Your task to perform on an android device: turn off location Image 0: 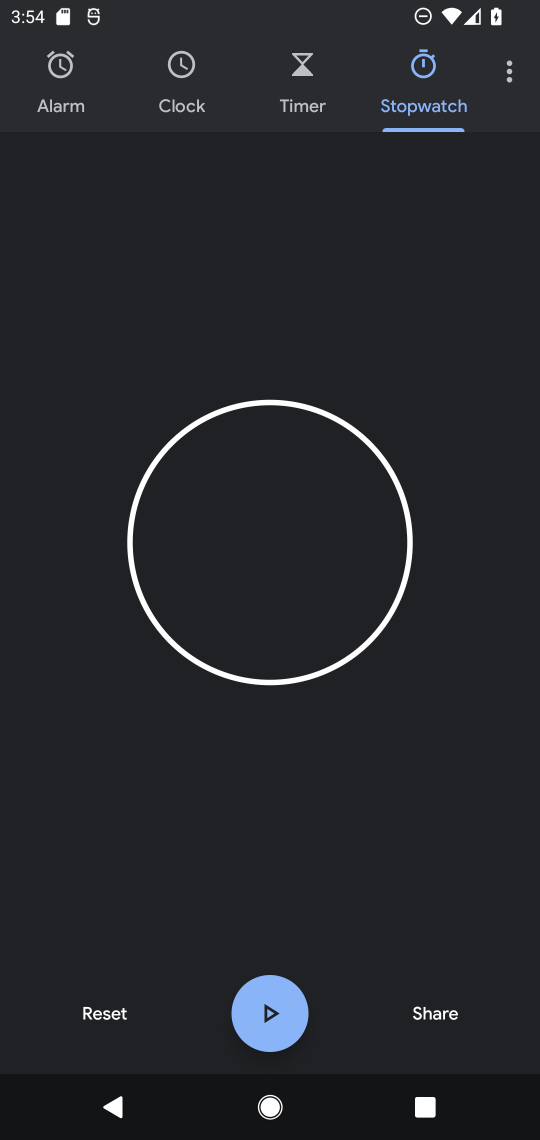
Step 0: press home button
Your task to perform on an android device: turn off location Image 1: 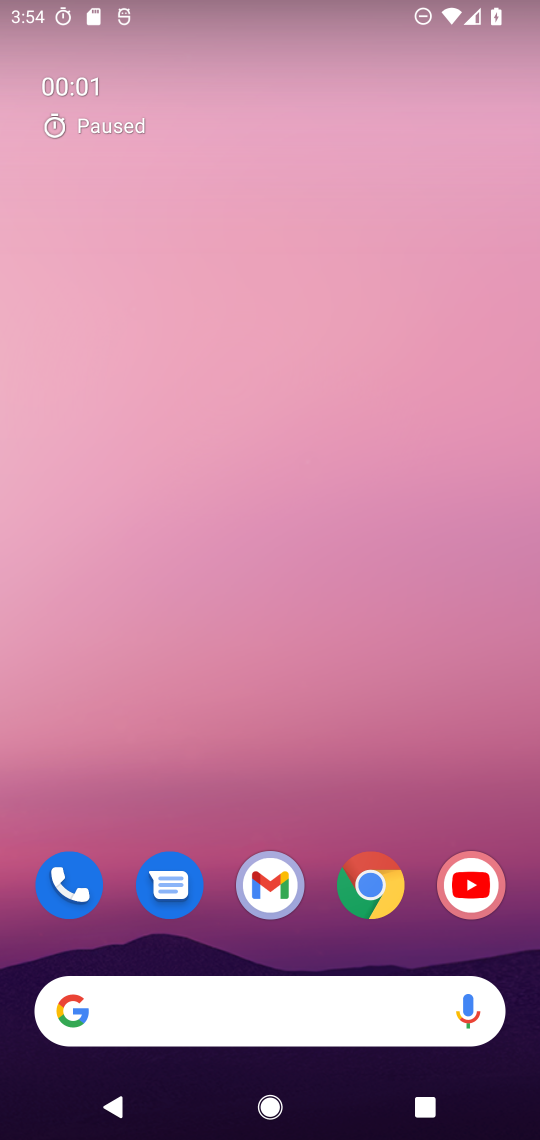
Step 1: drag from (241, 1004) to (352, 186)
Your task to perform on an android device: turn off location Image 2: 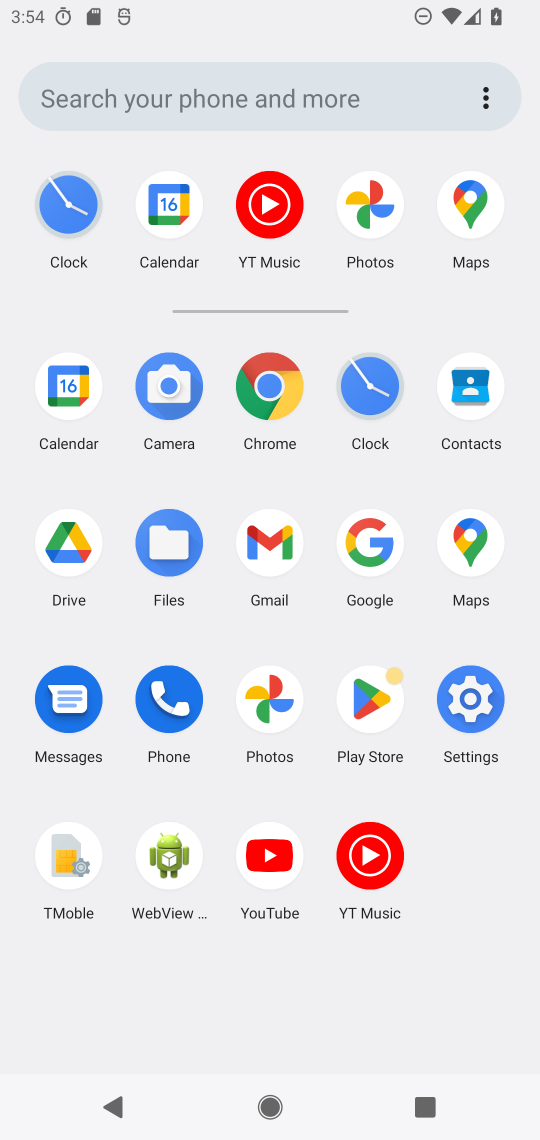
Step 2: click (473, 711)
Your task to perform on an android device: turn off location Image 3: 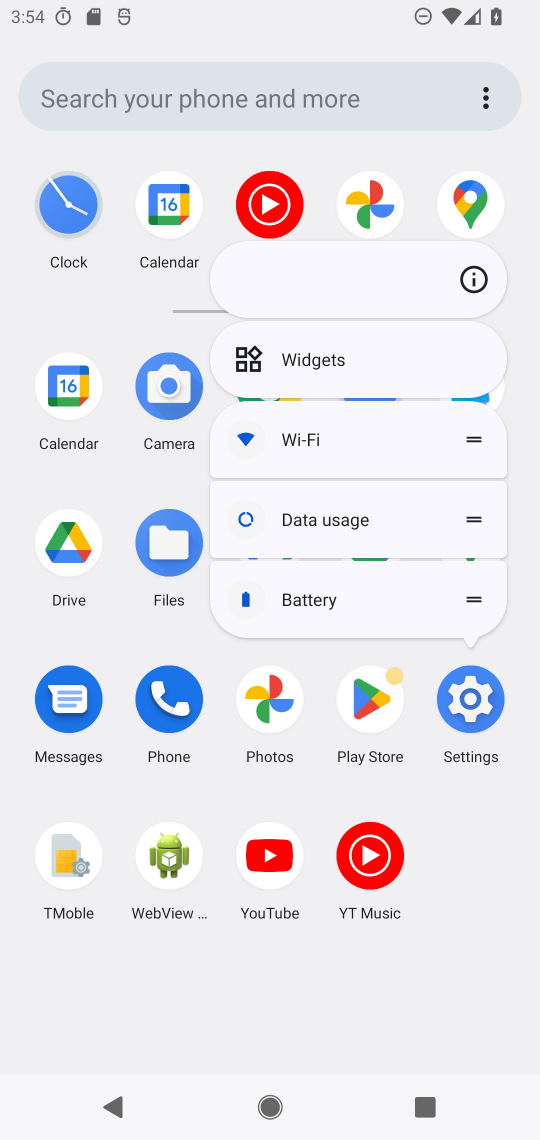
Step 3: click (458, 706)
Your task to perform on an android device: turn off location Image 4: 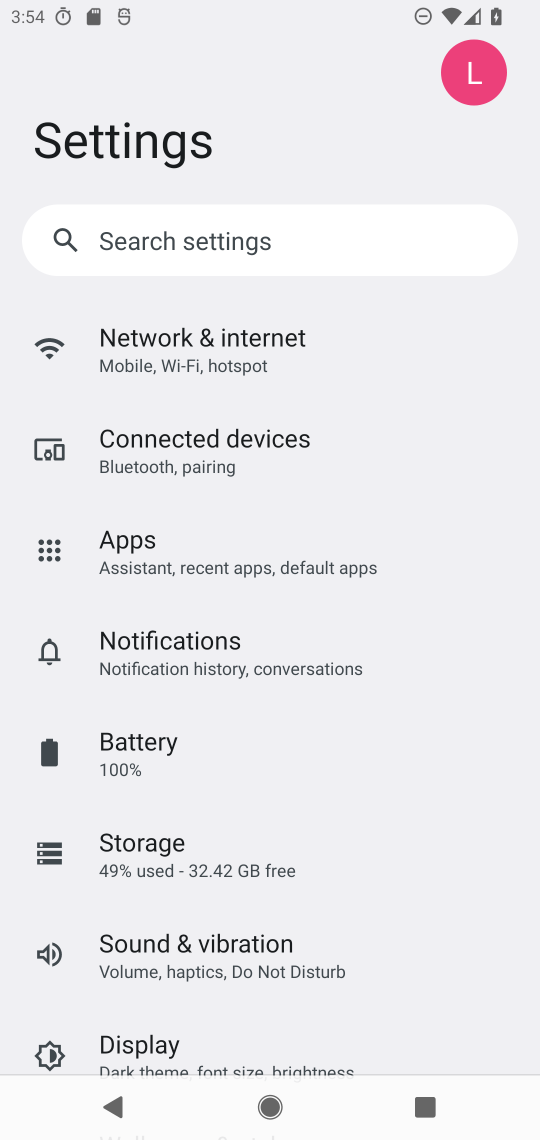
Step 4: drag from (179, 913) to (320, 224)
Your task to perform on an android device: turn off location Image 5: 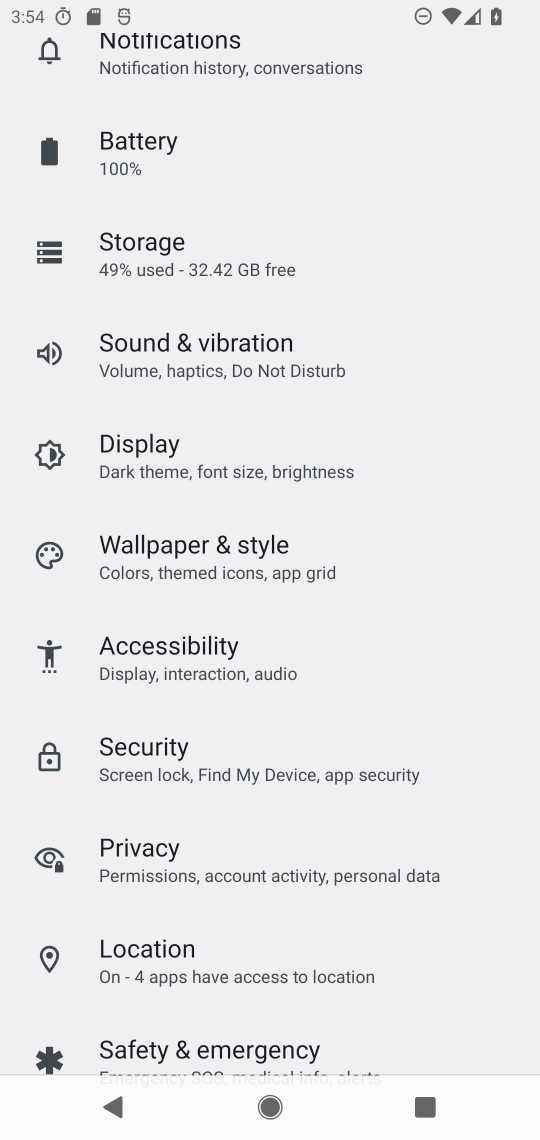
Step 5: click (180, 978)
Your task to perform on an android device: turn off location Image 6: 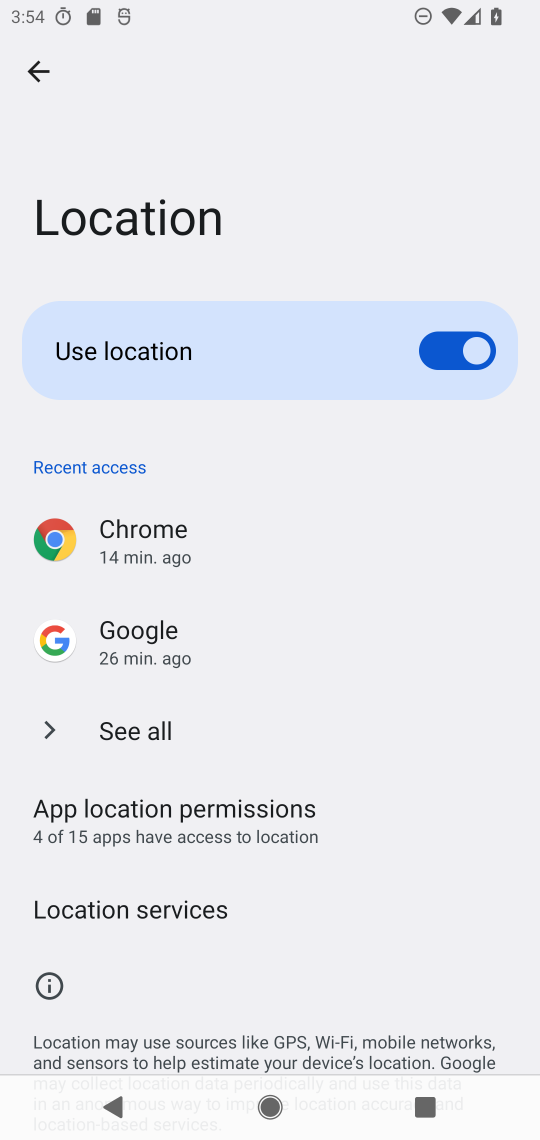
Step 6: click (471, 335)
Your task to perform on an android device: turn off location Image 7: 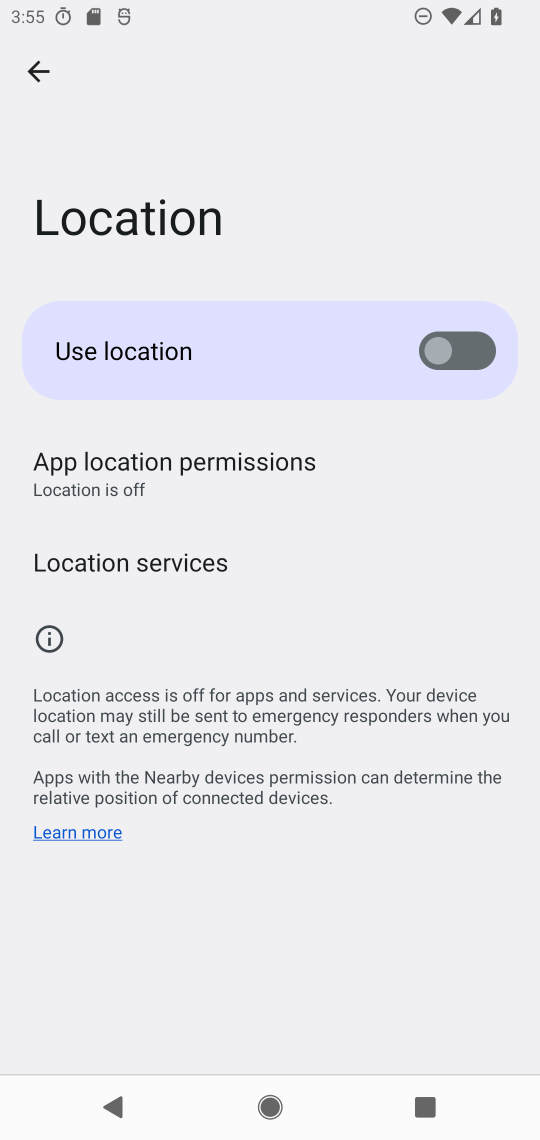
Step 7: task complete